Your task to perform on an android device: turn off priority inbox in the gmail app Image 0: 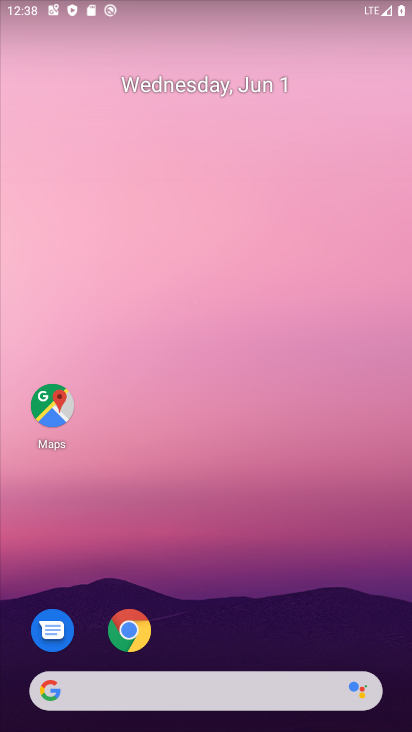
Step 0: press home button
Your task to perform on an android device: turn off priority inbox in the gmail app Image 1: 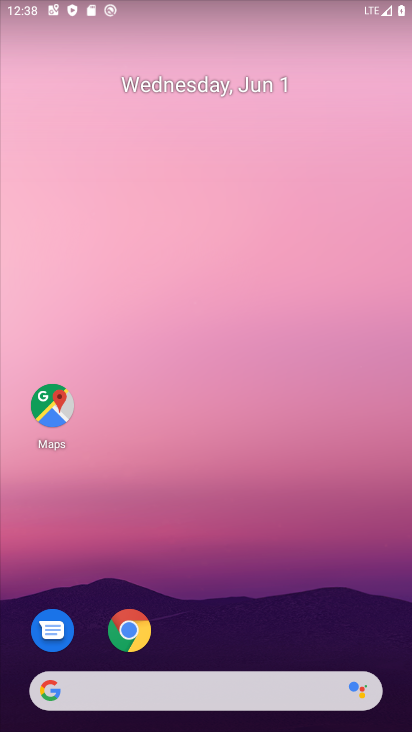
Step 1: drag from (318, 628) to (328, 146)
Your task to perform on an android device: turn off priority inbox in the gmail app Image 2: 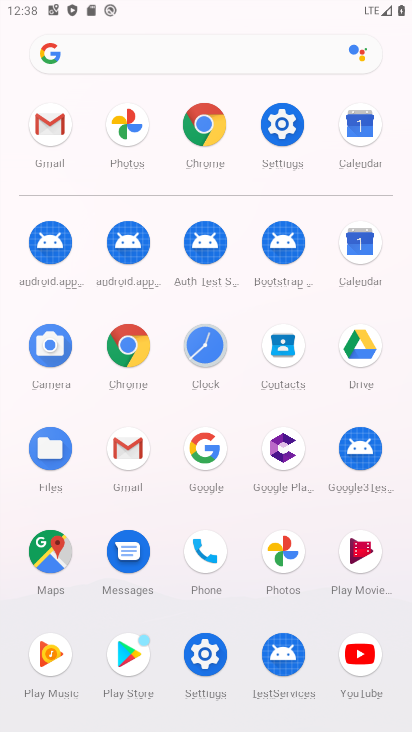
Step 2: click (54, 130)
Your task to perform on an android device: turn off priority inbox in the gmail app Image 3: 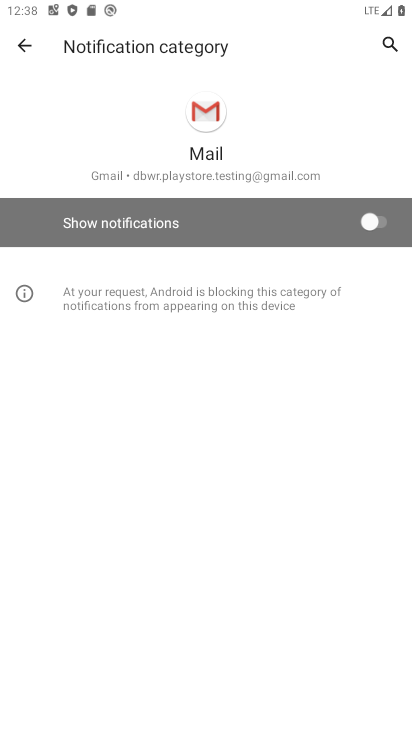
Step 3: click (17, 44)
Your task to perform on an android device: turn off priority inbox in the gmail app Image 4: 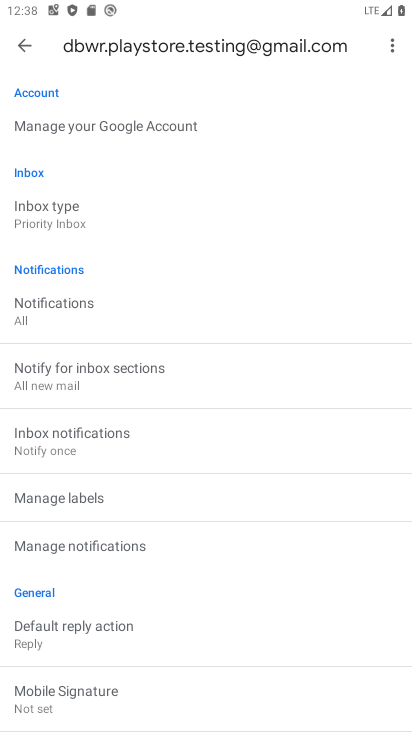
Step 4: click (94, 222)
Your task to perform on an android device: turn off priority inbox in the gmail app Image 5: 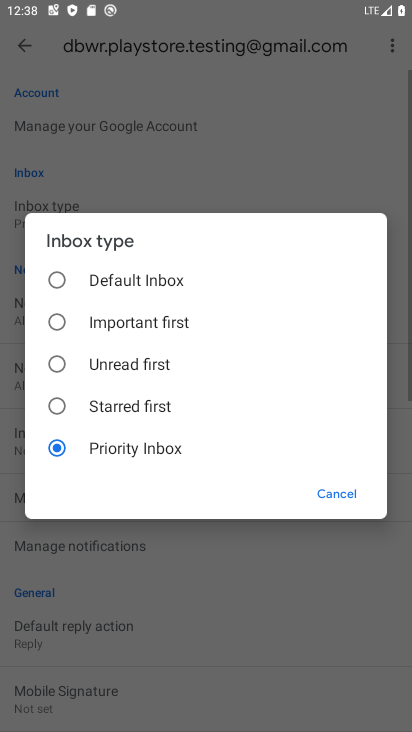
Step 5: click (125, 286)
Your task to perform on an android device: turn off priority inbox in the gmail app Image 6: 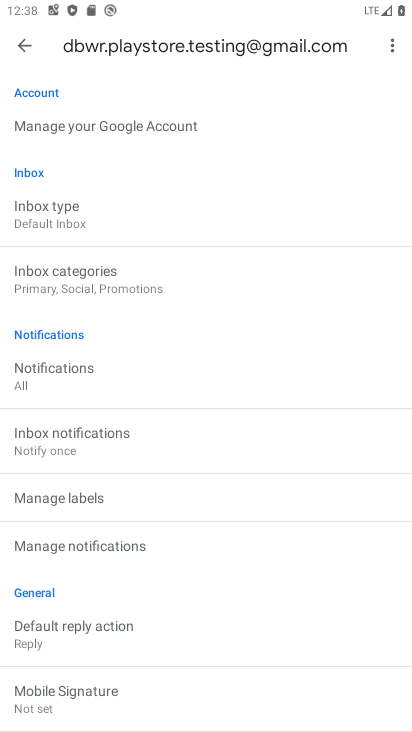
Step 6: task complete